Your task to perform on an android device: Clear all items from cart on walmart.com. Add "bose soundlink mini" to the cart on walmart.com Image 0: 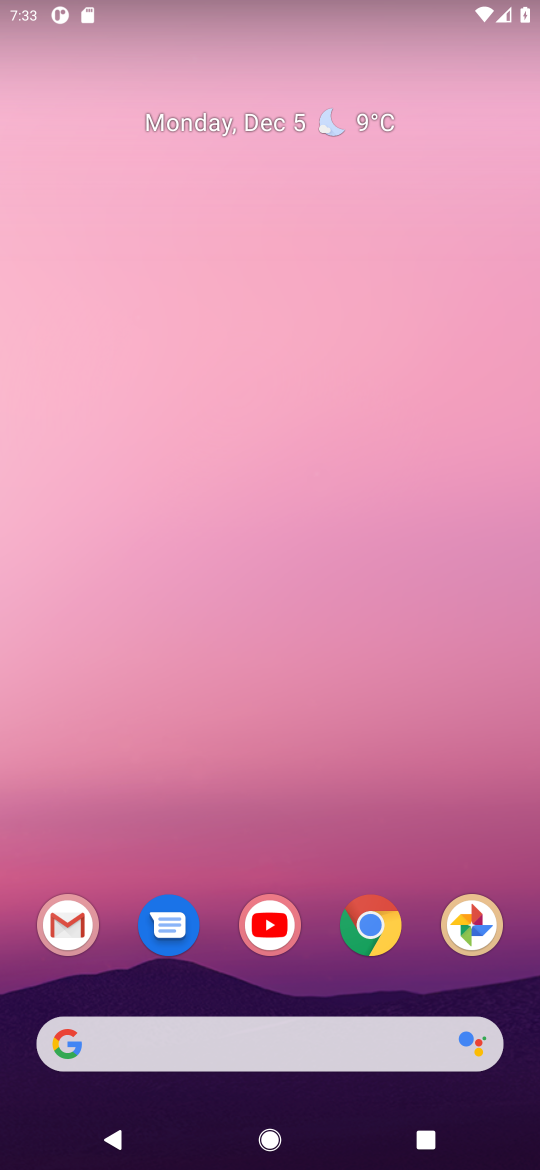
Step 0: click (370, 930)
Your task to perform on an android device: Clear all items from cart on walmart.com. Add "bose soundlink mini" to the cart on walmart.com Image 1: 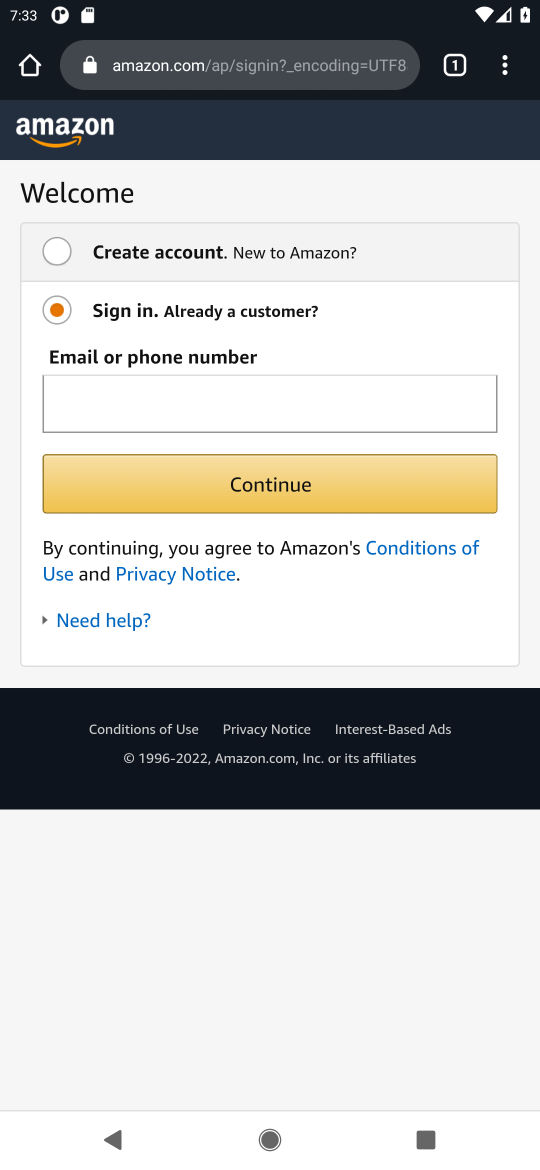
Step 1: click (198, 62)
Your task to perform on an android device: Clear all items from cart on walmart.com. Add "bose soundlink mini" to the cart on walmart.com Image 2: 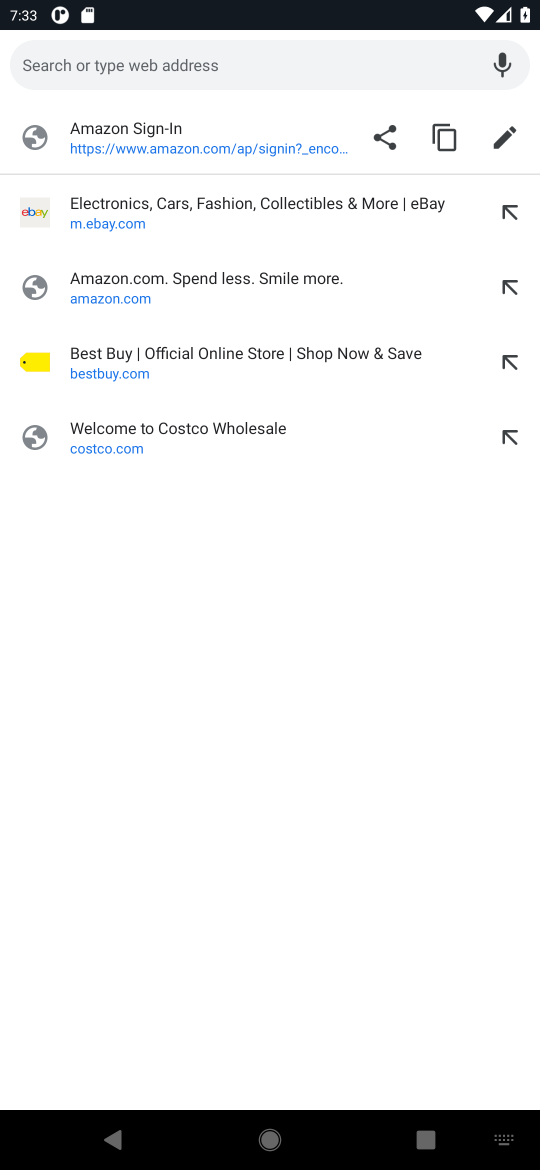
Step 2: type "walmart.com"
Your task to perform on an android device: Clear all items from cart on walmart.com. Add "bose soundlink mini" to the cart on walmart.com Image 3: 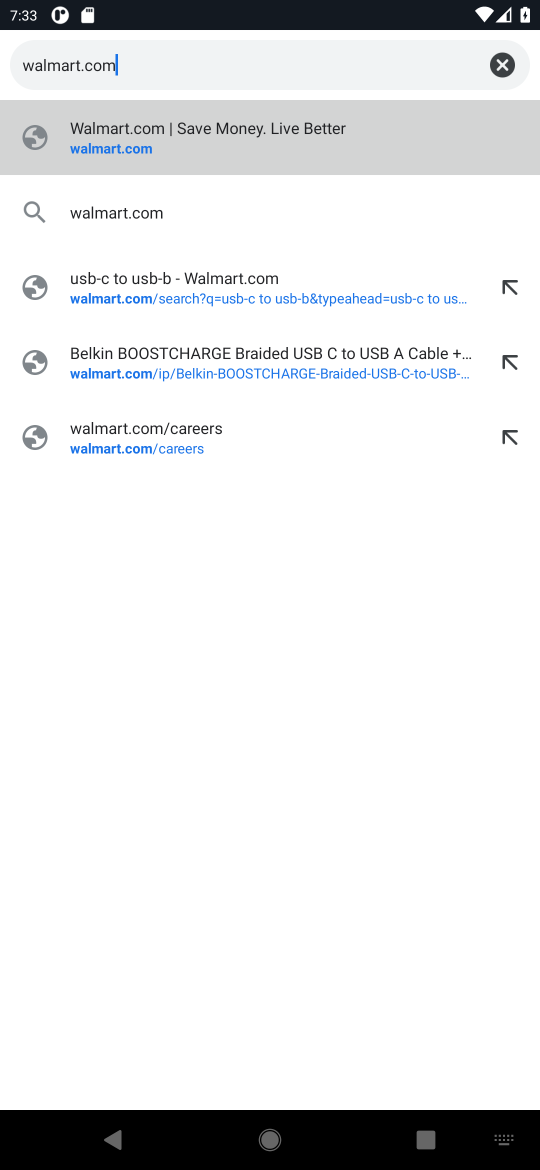
Step 3: click (106, 155)
Your task to perform on an android device: Clear all items from cart on walmart.com. Add "bose soundlink mini" to the cart on walmart.com Image 4: 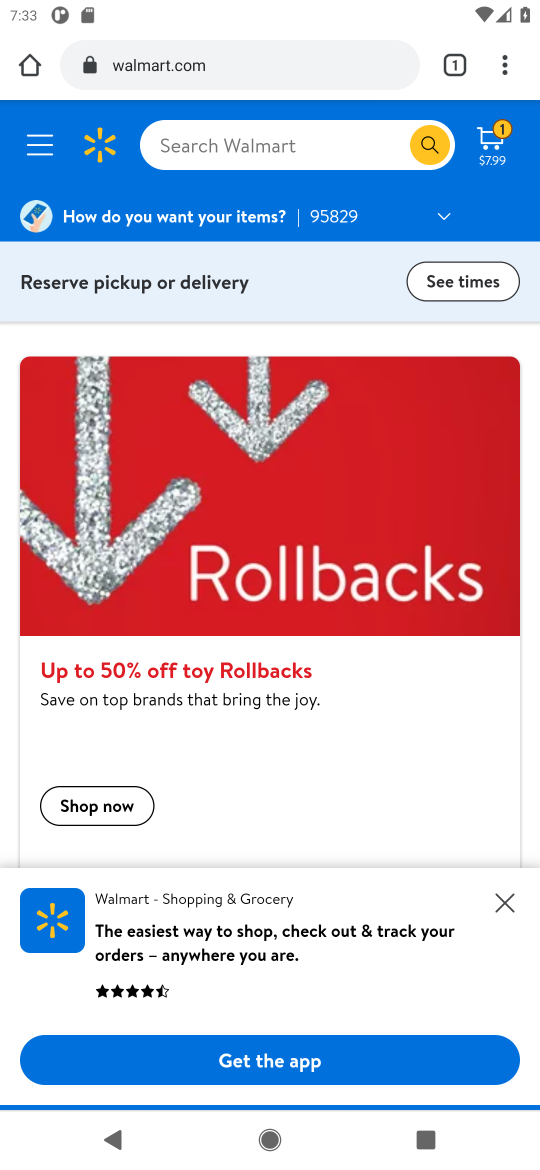
Step 4: click (506, 146)
Your task to perform on an android device: Clear all items from cart on walmart.com. Add "bose soundlink mini" to the cart on walmart.com Image 5: 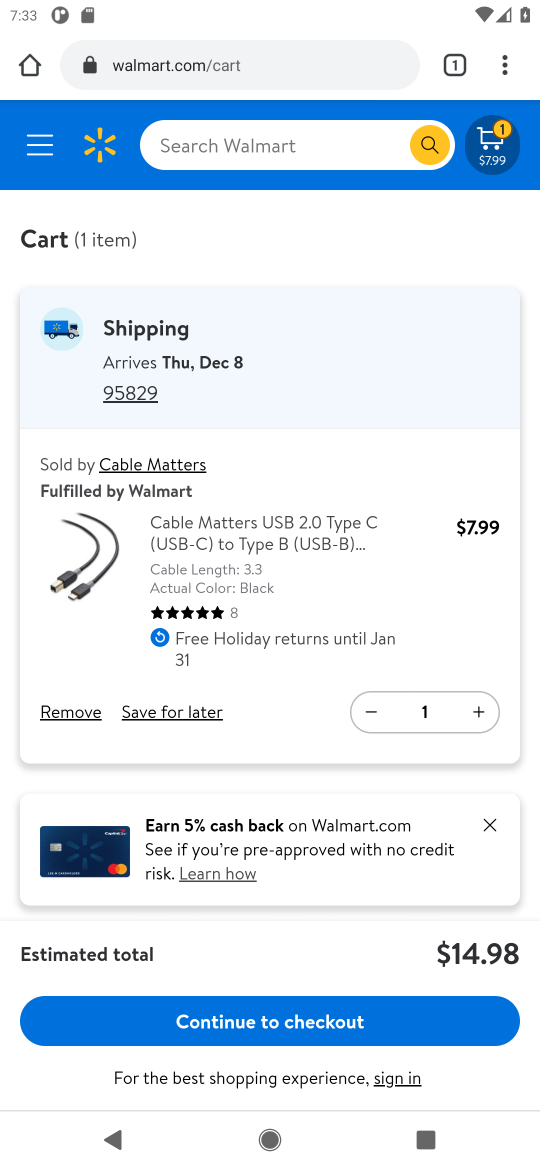
Step 5: click (67, 722)
Your task to perform on an android device: Clear all items from cart on walmart.com. Add "bose soundlink mini" to the cart on walmart.com Image 6: 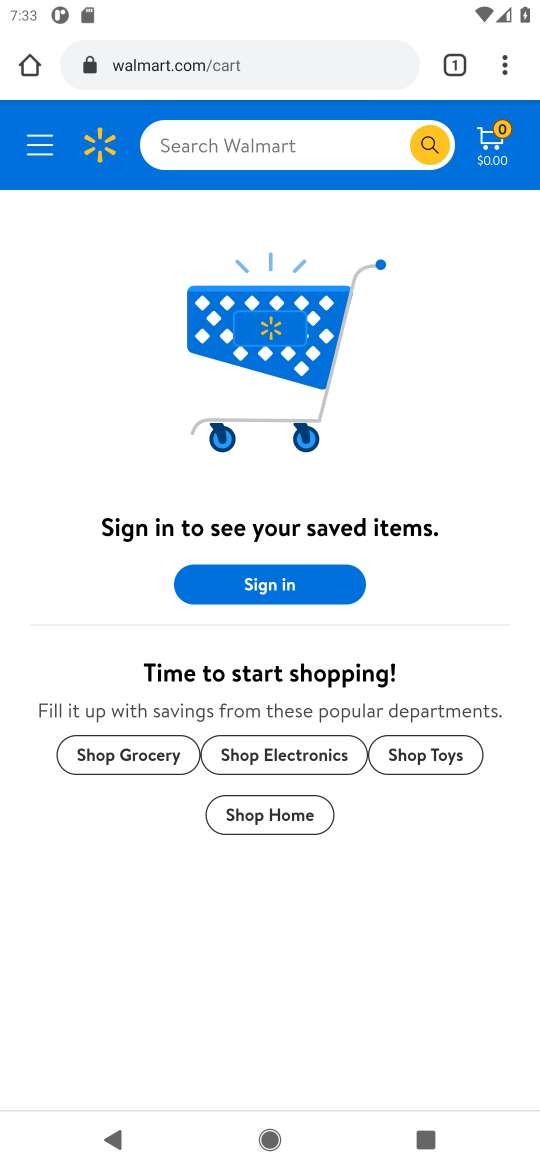
Step 6: click (220, 154)
Your task to perform on an android device: Clear all items from cart on walmart.com. Add "bose soundlink mini" to the cart on walmart.com Image 7: 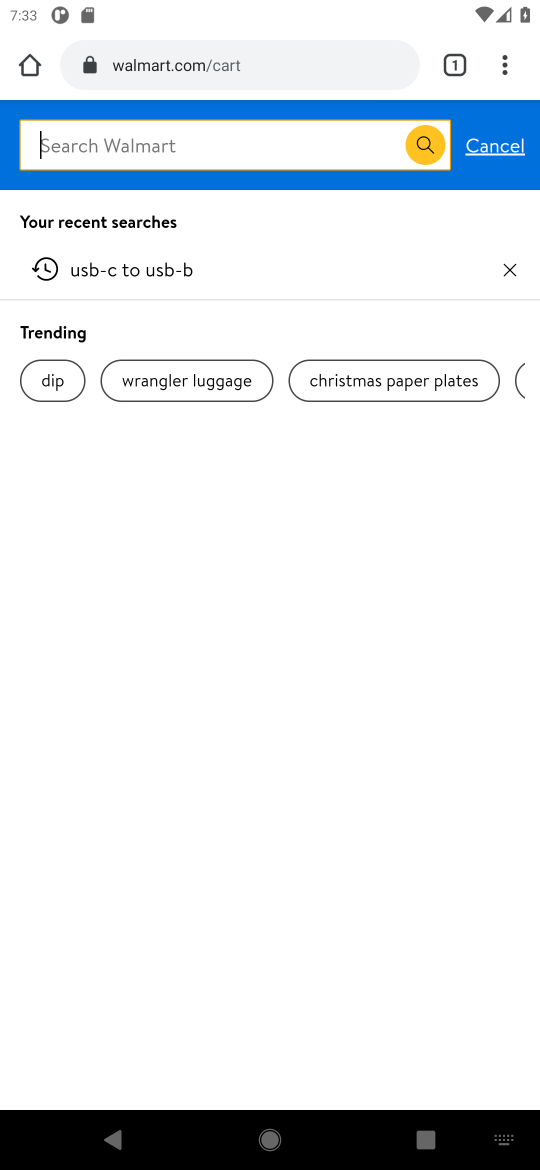
Step 7: type "bose soundlink mini"
Your task to perform on an android device: Clear all items from cart on walmart.com. Add "bose soundlink mini" to the cart on walmart.com Image 8: 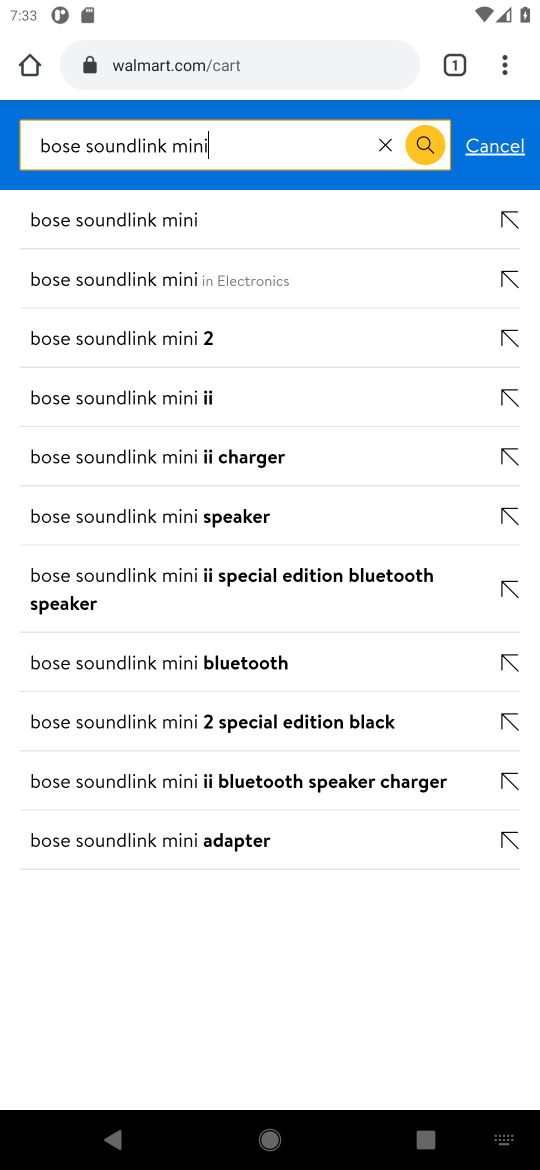
Step 8: click (103, 222)
Your task to perform on an android device: Clear all items from cart on walmart.com. Add "bose soundlink mini" to the cart on walmart.com Image 9: 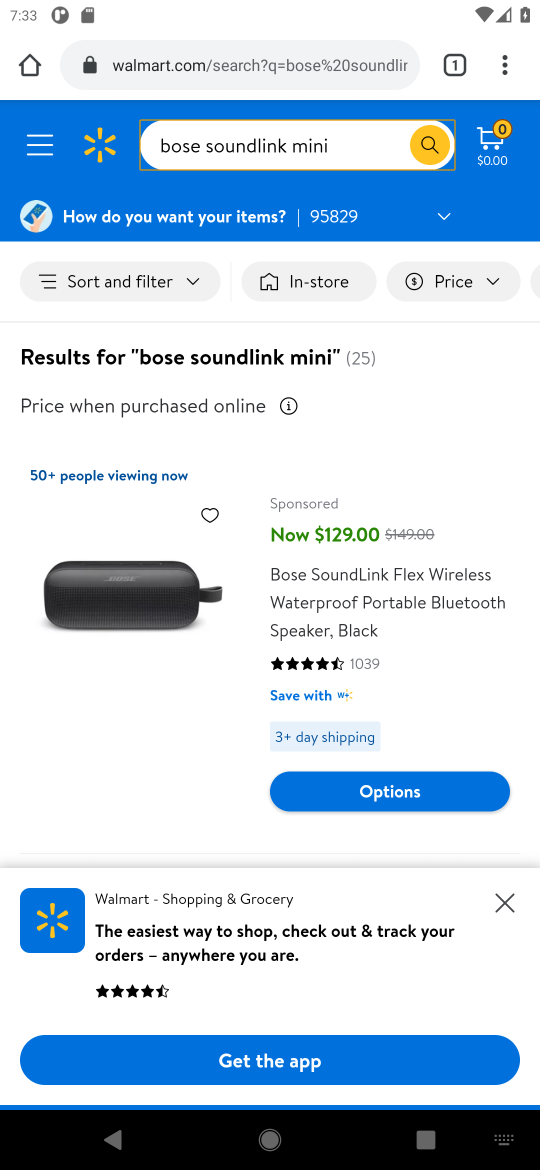
Step 9: task complete